Your task to perform on an android device: Open the Play Movies app and select the watchlist tab. Image 0: 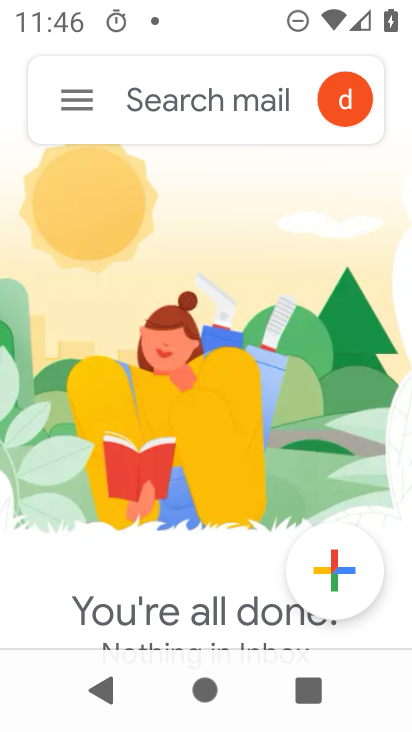
Step 0: press back button
Your task to perform on an android device: Open the Play Movies app and select the watchlist tab. Image 1: 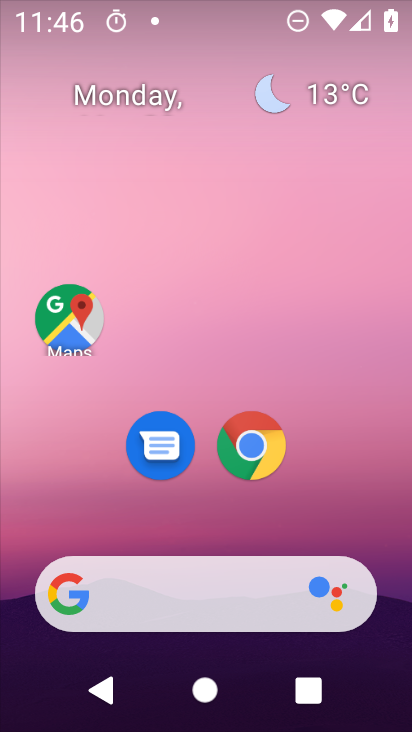
Step 1: drag from (151, 553) to (240, 68)
Your task to perform on an android device: Open the Play Movies app and select the watchlist tab. Image 2: 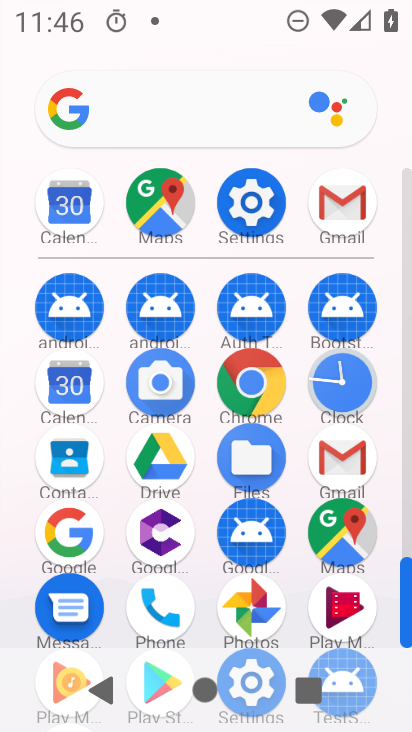
Step 2: drag from (254, 524) to (284, 261)
Your task to perform on an android device: Open the Play Movies app and select the watchlist tab. Image 3: 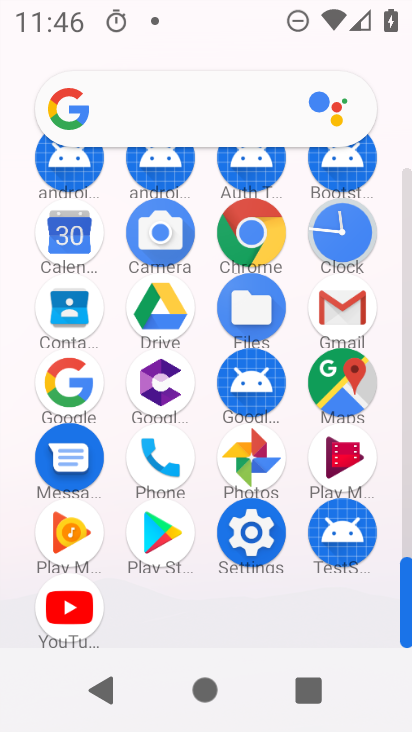
Step 3: click (344, 458)
Your task to perform on an android device: Open the Play Movies app and select the watchlist tab. Image 4: 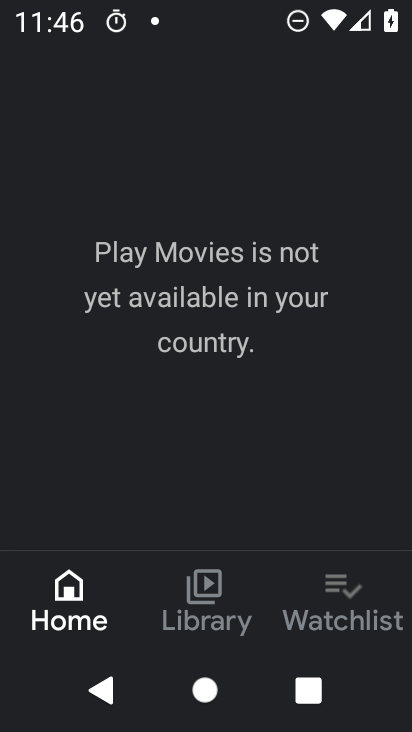
Step 4: click (323, 597)
Your task to perform on an android device: Open the Play Movies app and select the watchlist tab. Image 5: 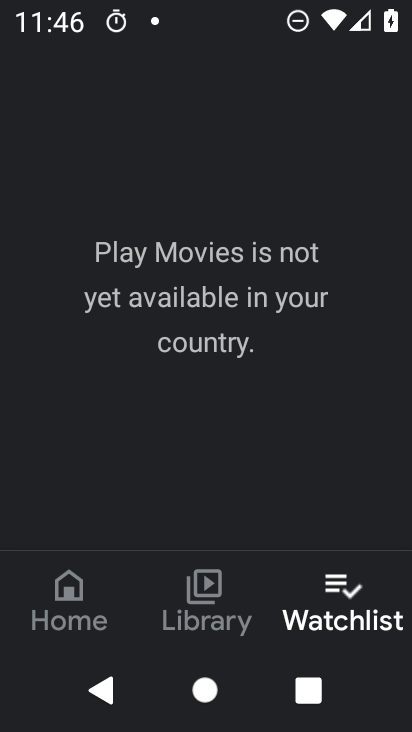
Step 5: task complete